Your task to perform on an android device: check storage Image 0: 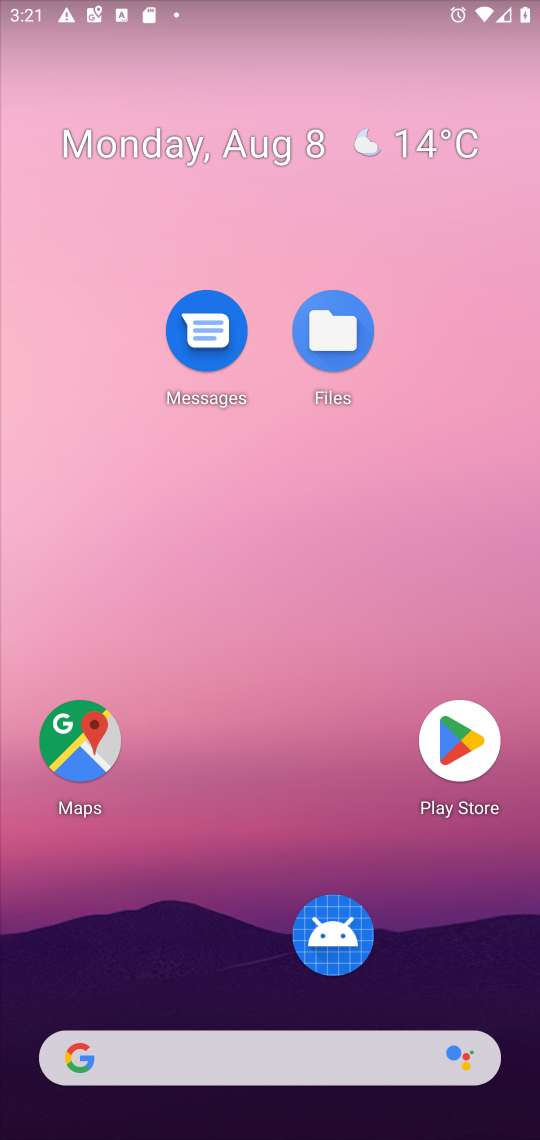
Step 0: drag from (254, 1049) to (249, 121)
Your task to perform on an android device: check storage Image 1: 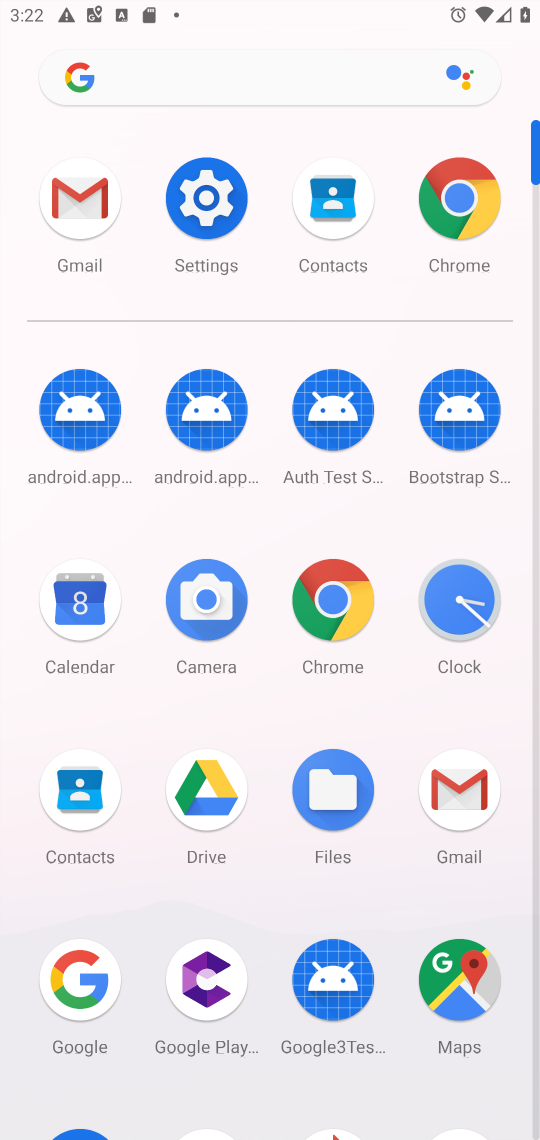
Step 1: click (214, 219)
Your task to perform on an android device: check storage Image 2: 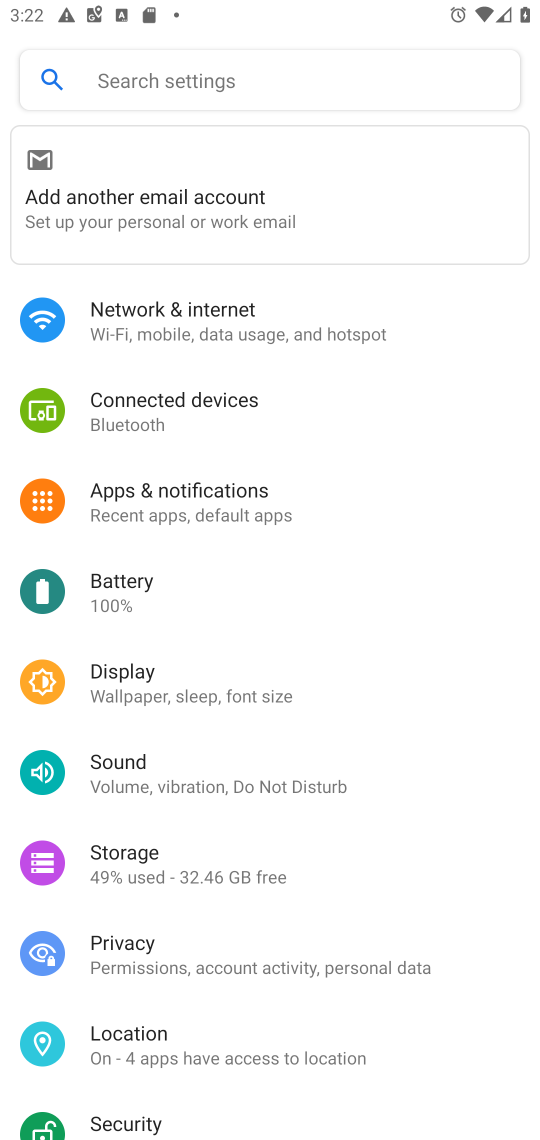
Step 2: click (194, 869)
Your task to perform on an android device: check storage Image 3: 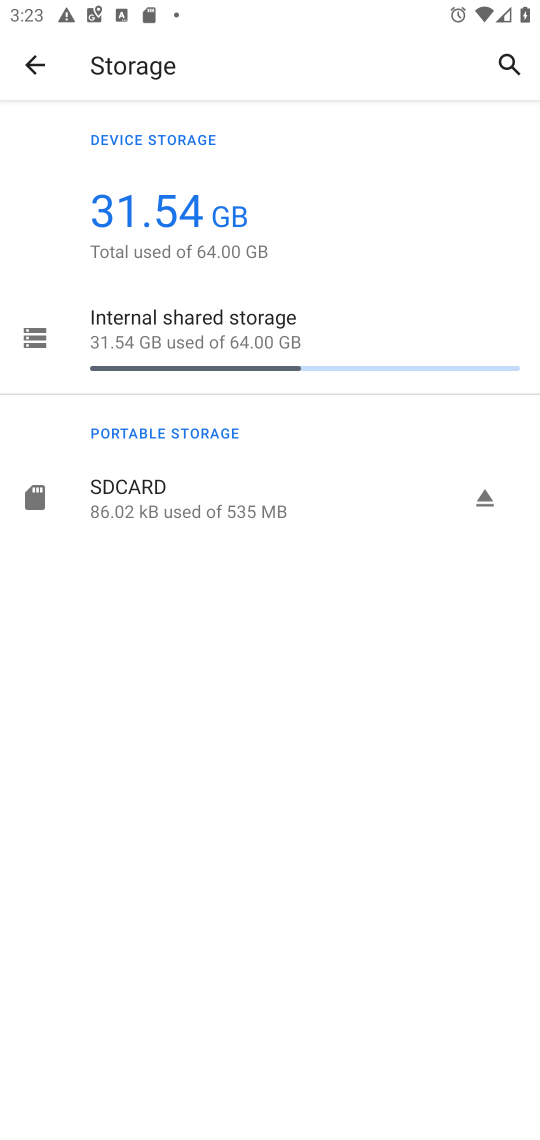
Step 3: task complete